Your task to perform on an android device: Go to Android settings Image 0: 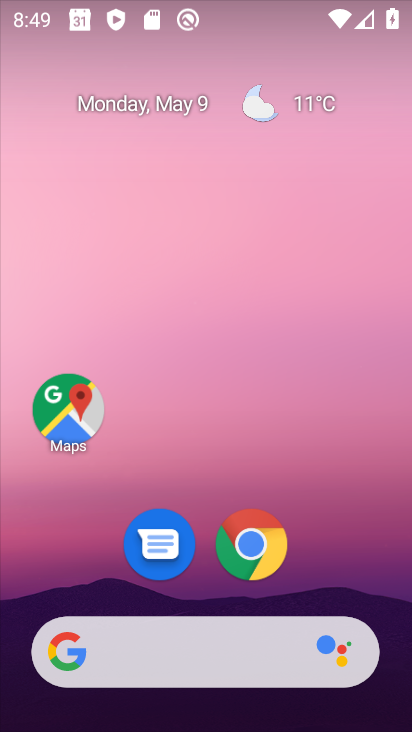
Step 0: drag from (402, 633) to (367, 184)
Your task to perform on an android device: Go to Android settings Image 1: 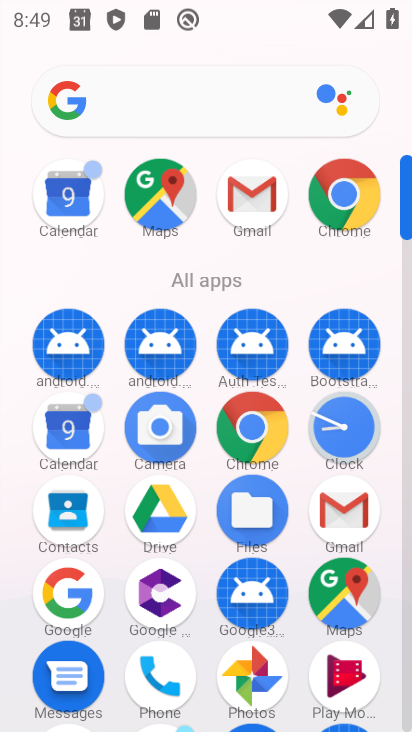
Step 1: drag from (399, 615) to (408, 508)
Your task to perform on an android device: Go to Android settings Image 2: 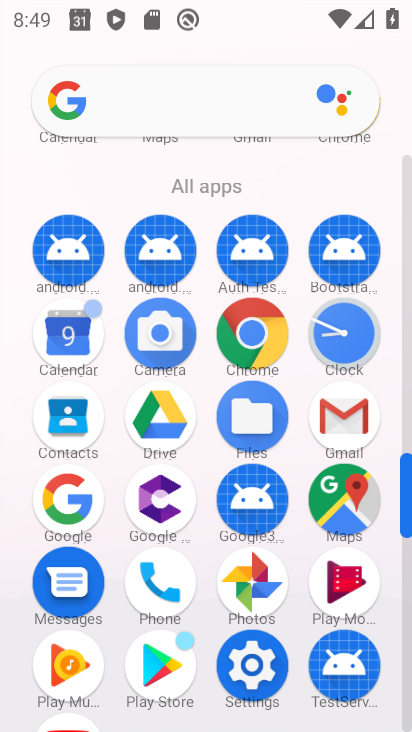
Step 2: click (253, 646)
Your task to perform on an android device: Go to Android settings Image 3: 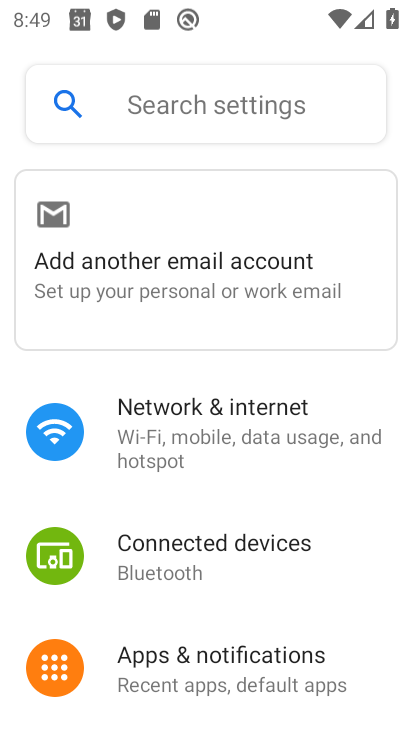
Step 3: task complete